Your task to perform on an android device: turn vacation reply on in the gmail app Image 0: 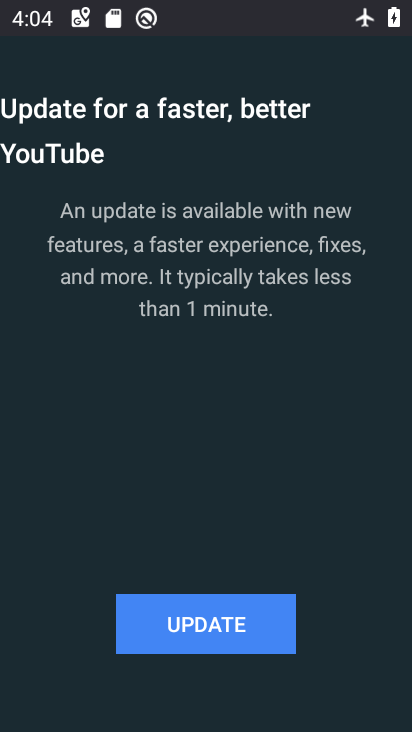
Step 0: press home button
Your task to perform on an android device: turn vacation reply on in the gmail app Image 1: 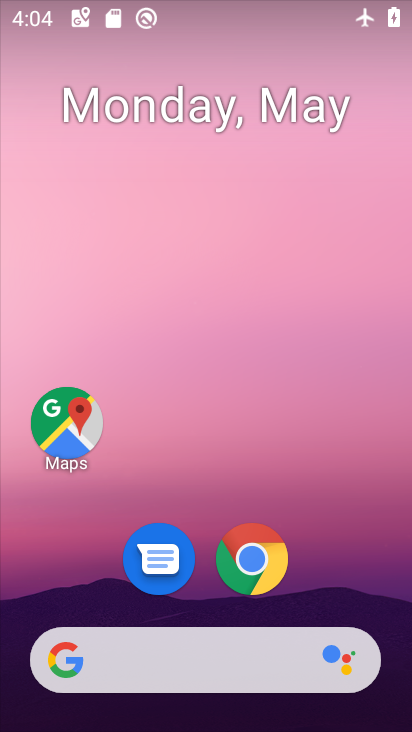
Step 1: click (257, 564)
Your task to perform on an android device: turn vacation reply on in the gmail app Image 2: 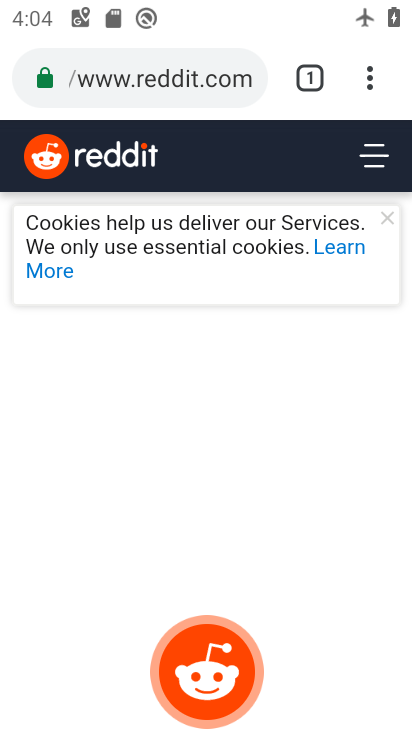
Step 2: press home button
Your task to perform on an android device: turn vacation reply on in the gmail app Image 3: 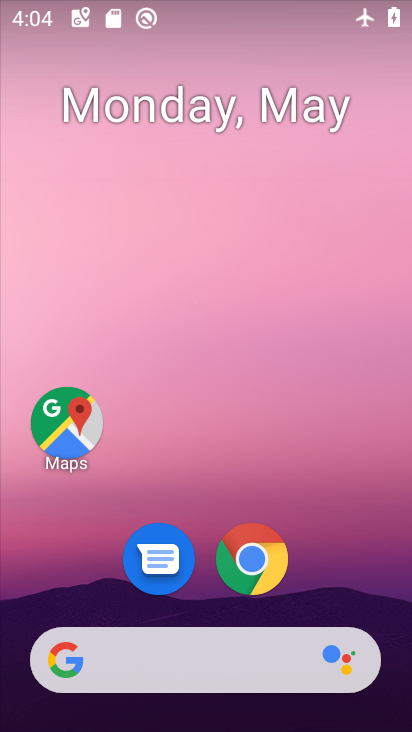
Step 3: drag from (204, 586) to (200, 200)
Your task to perform on an android device: turn vacation reply on in the gmail app Image 4: 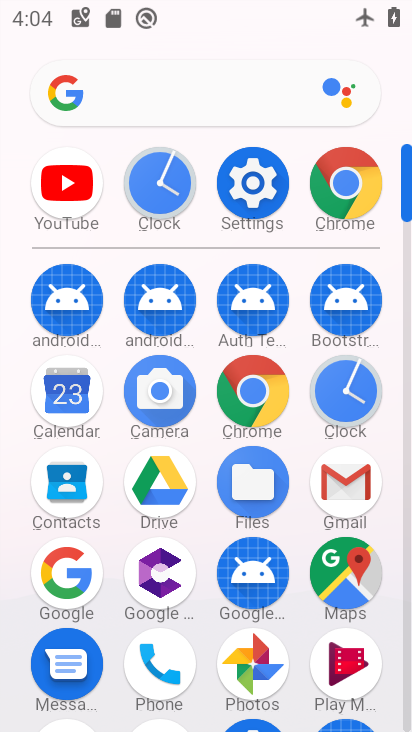
Step 4: click (344, 476)
Your task to perform on an android device: turn vacation reply on in the gmail app Image 5: 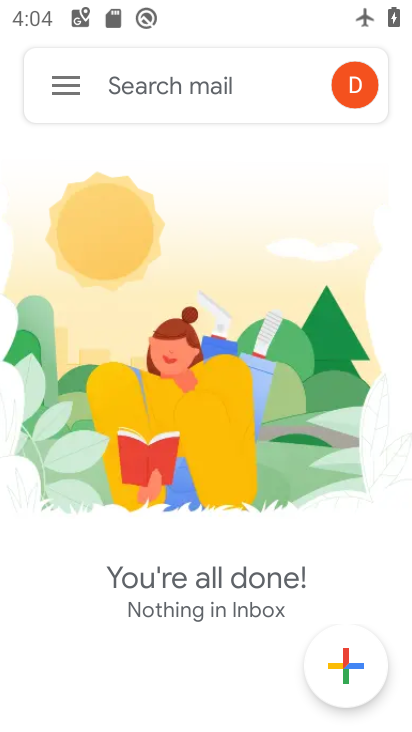
Step 5: click (76, 78)
Your task to perform on an android device: turn vacation reply on in the gmail app Image 6: 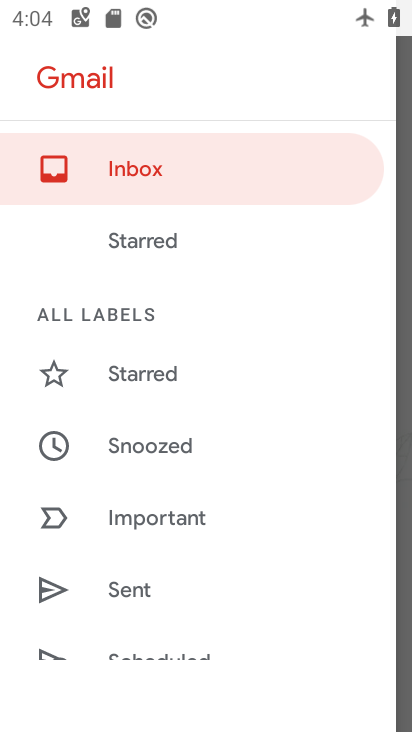
Step 6: drag from (206, 591) to (175, 337)
Your task to perform on an android device: turn vacation reply on in the gmail app Image 7: 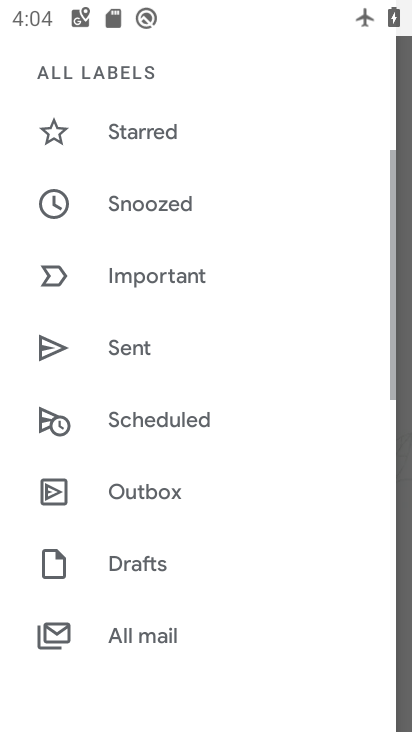
Step 7: drag from (157, 607) to (146, 404)
Your task to perform on an android device: turn vacation reply on in the gmail app Image 8: 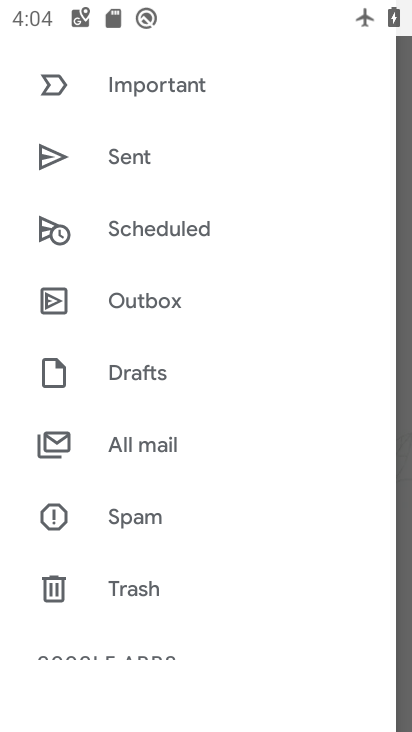
Step 8: drag from (180, 594) to (162, 293)
Your task to perform on an android device: turn vacation reply on in the gmail app Image 9: 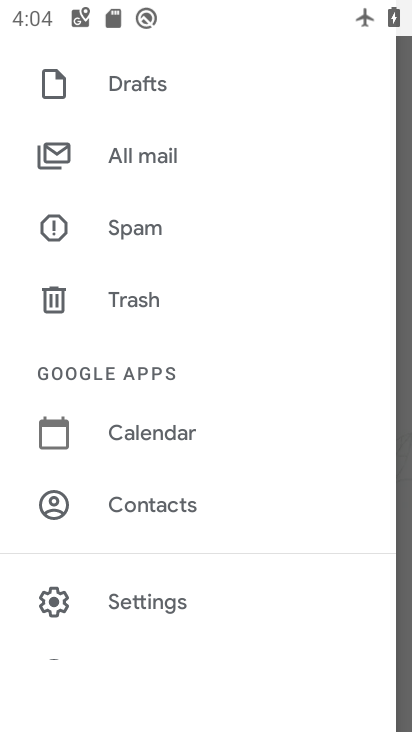
Step 9: click (136, 600)
Your task to perform on an android device: turn vacation reply on in the gmail app Image 10: 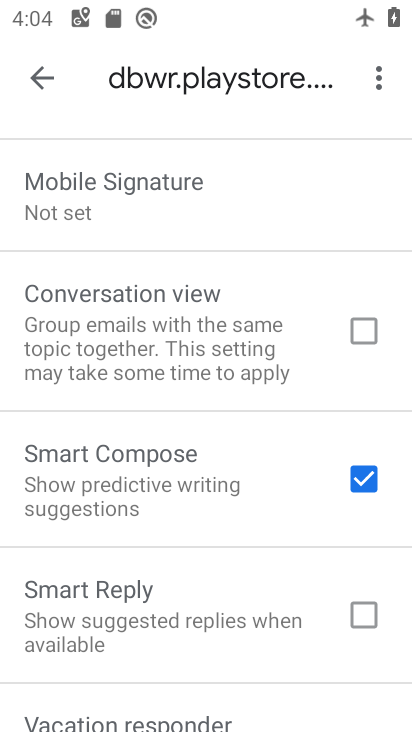
Step 10: drag from (116, 627) to (115, 382)
Your task to perform on an android device: turn vacation reply on in the gmail app Image 11: 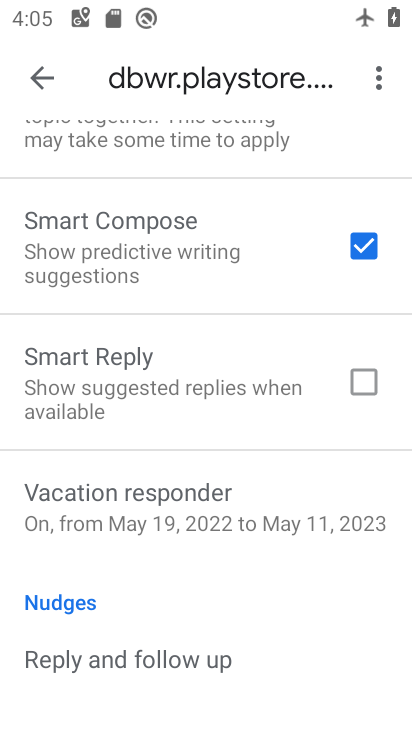
Step 11: click (158, 519)
Your task to perform on an android device: turn vacation reply on in the gmail app Image 12: 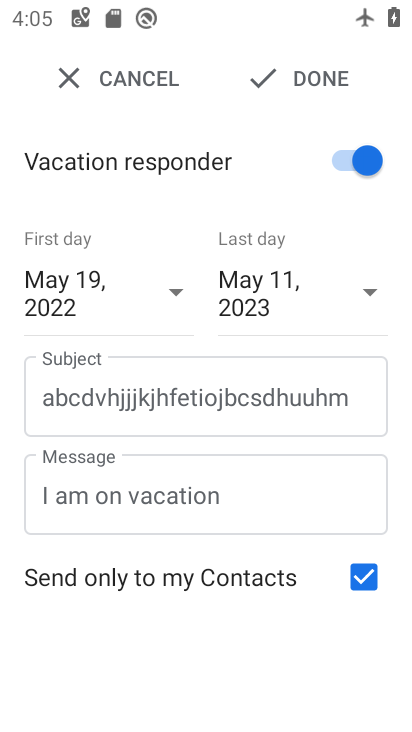
Step 12: task complete